Your task to perform on an android device: change the clock display to digital Image 0: 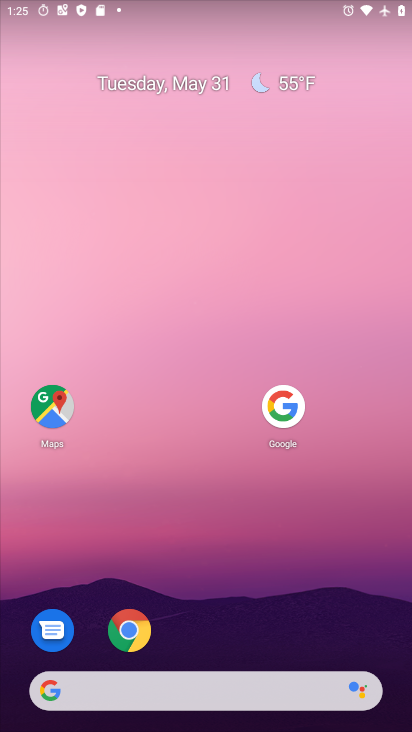
Step 0: press home button
Your task to perform on an android device: change the clock display to digital Image 1: 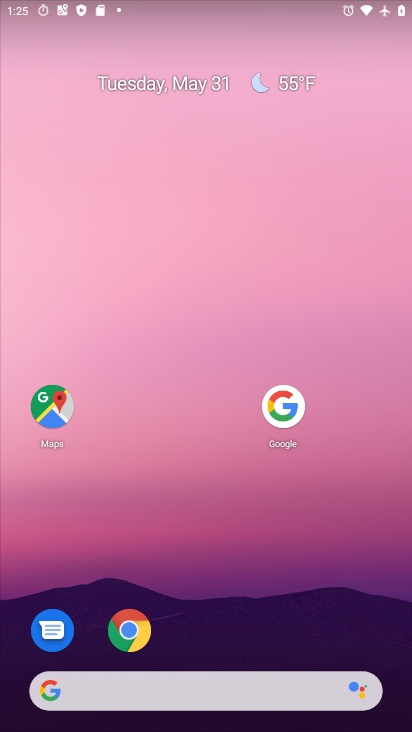
Step 1: drag from (163, 679) to (325, 143)
Your task to perform on an android device: change the clock display to digital Image 2: 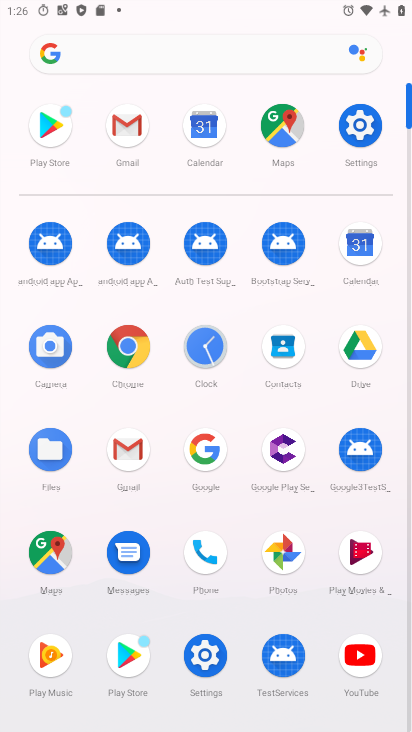
Step 2: click (199, 349)
Your task to perform on an android device: change the clock display to digital Image 3: 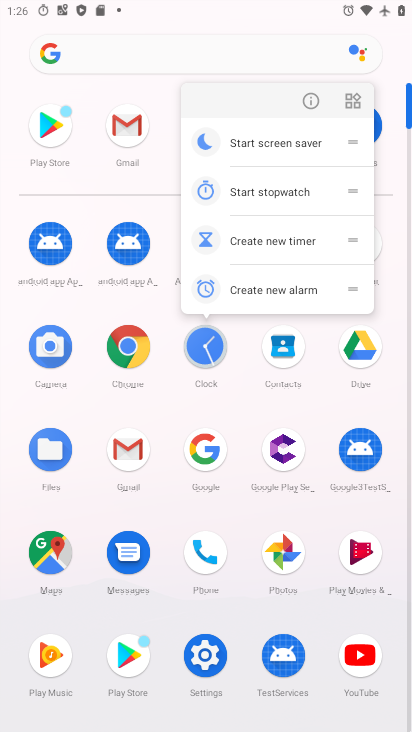
Step 3: click (199, 354)
Your task to perform on an android device: change the clock display to digital Image 4: 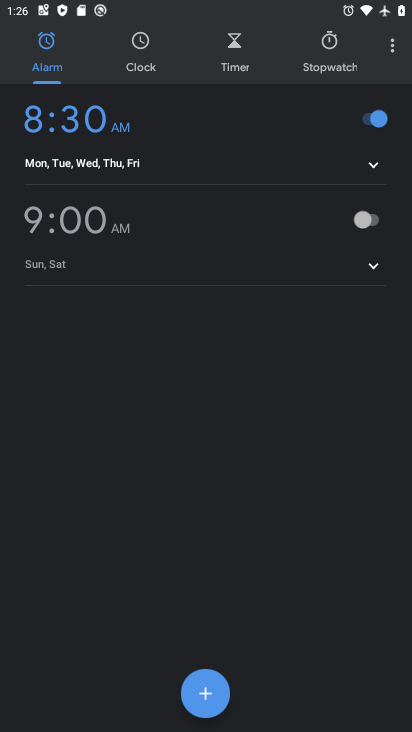
Step 4: click (393, 48)
Your task to perform on an android device: change the clock display to digital Image 5: 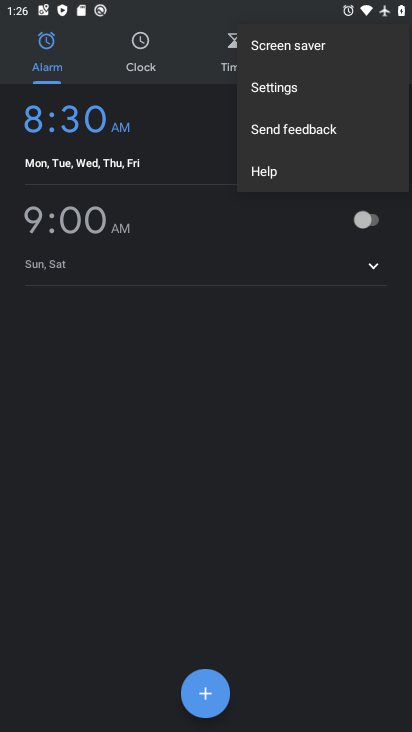
Step 5: click (283, 92)
Your task to perform on an android device: change the clock display to digital Image 6: 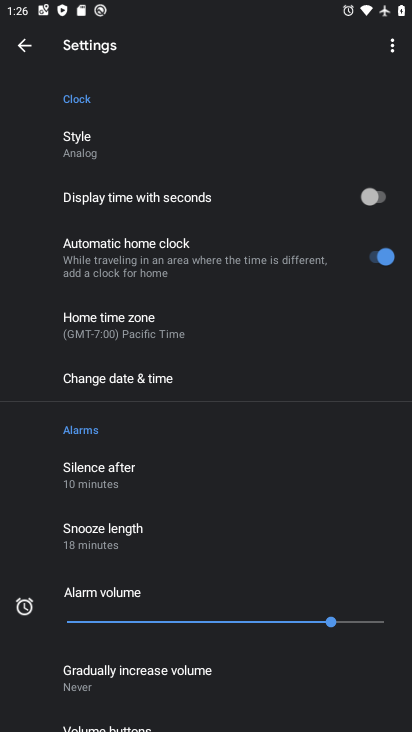
Step 6: click (76, 147)
Your task to perform on an android device: change the clock display to digital Image 7: 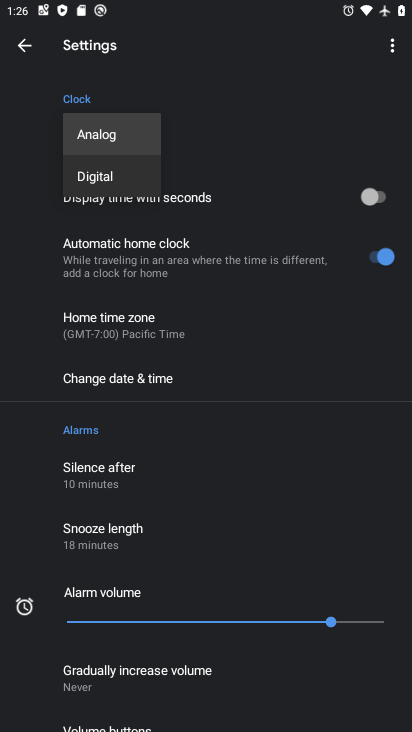
Step 7: click (100, 180)
Your task to perform on an android device: change the clock display to digital Image 8: 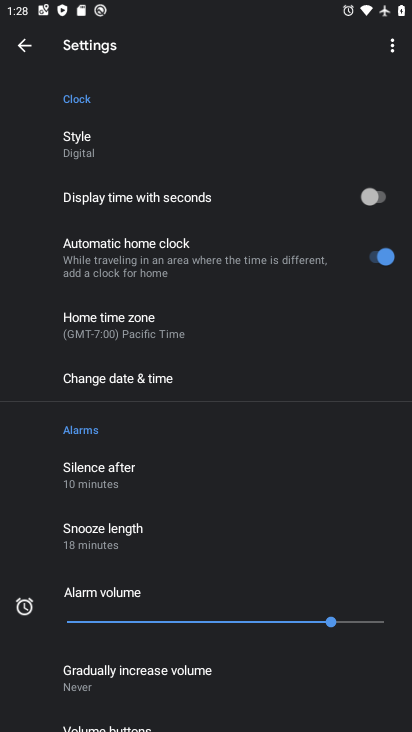
Step 8: task complete